Your task to perform on an android device: Go to Google Image 0: 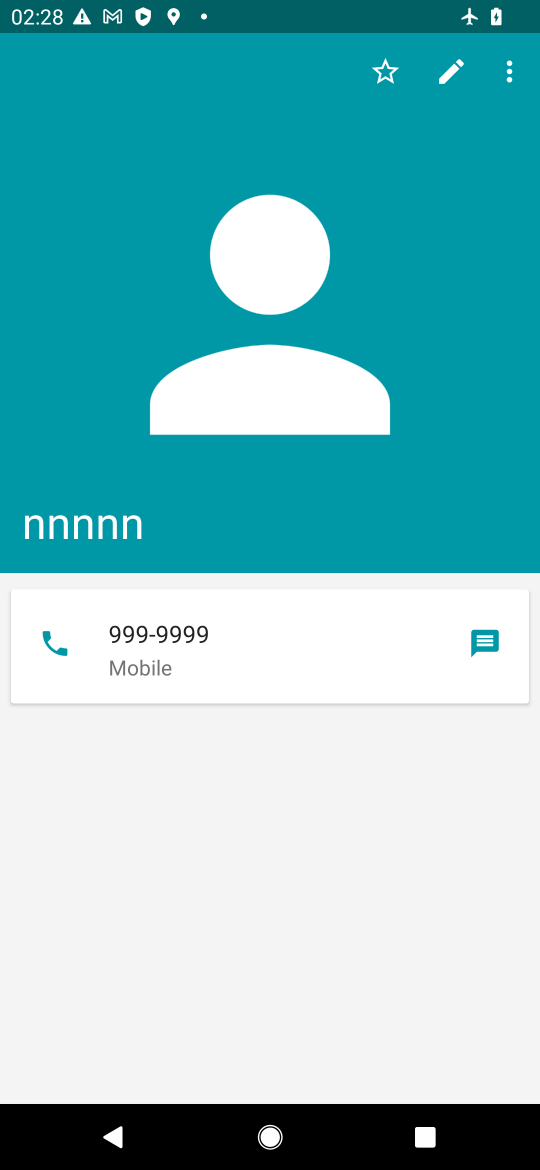
Step 0: press home button
Your task to perform on an android device: Go to Google Image 1: 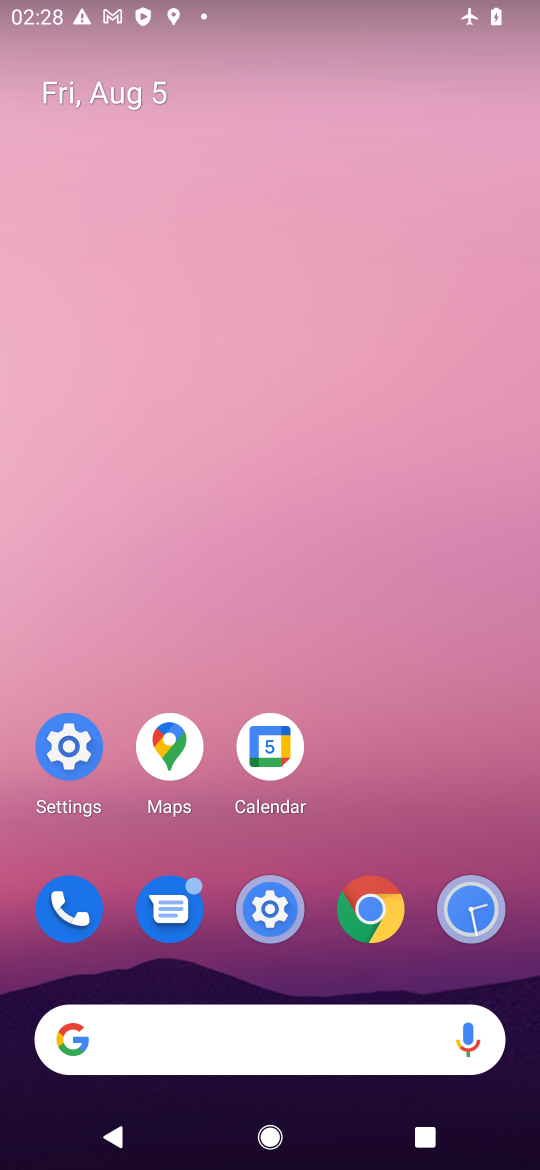
Step 1: click (64, 1048)
Your task to perform on an android device: Go to Google Image 2: 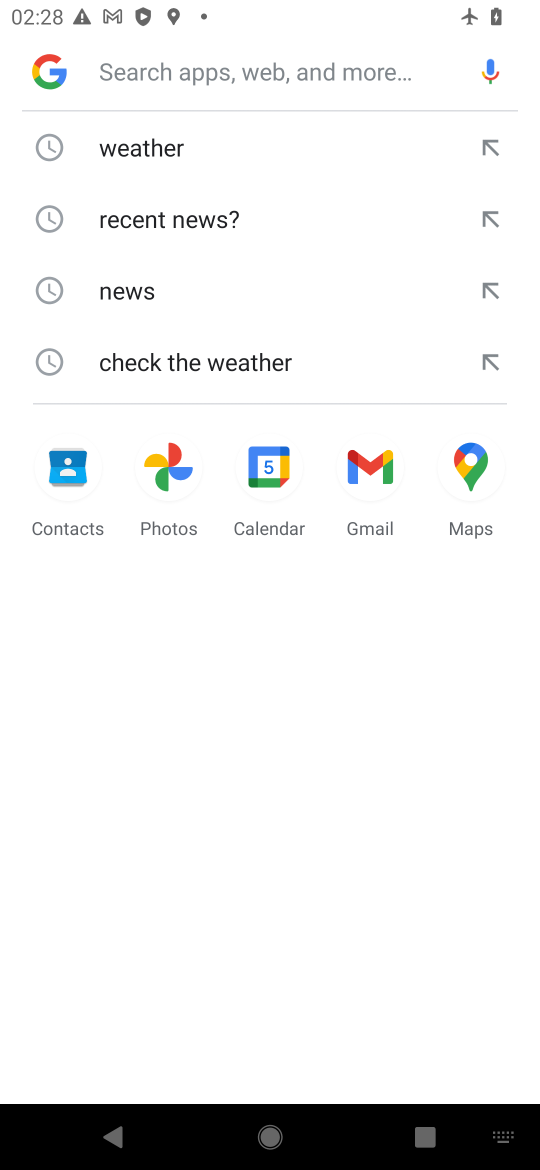
Step 2: click (40, 65)
Your task to perform on an android device: Go to Google Image 3: 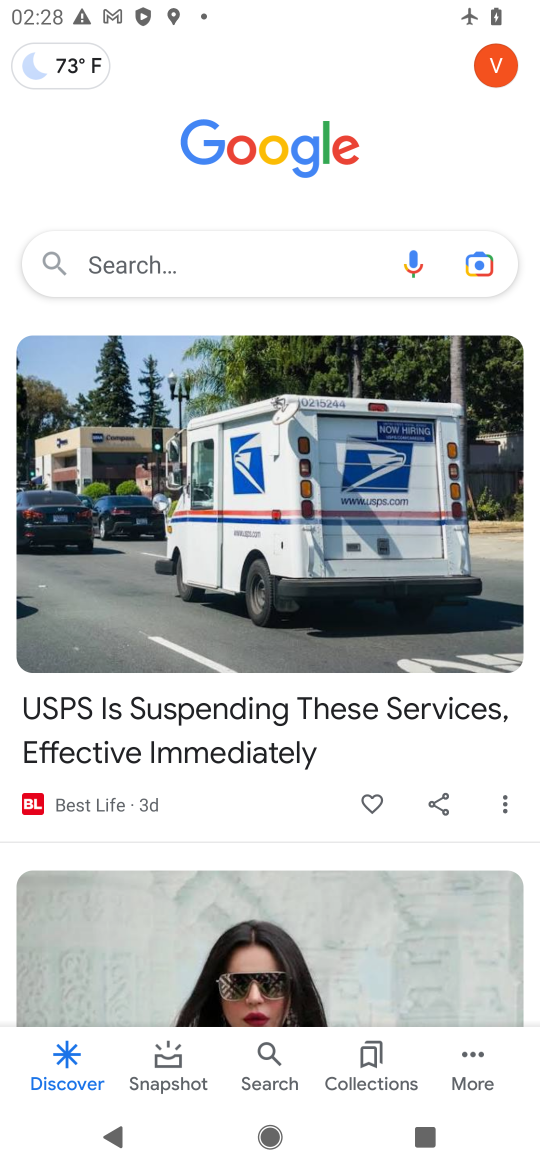
Step 3: task complete